Your task to perform on an android device: Go to eBay Image 0: 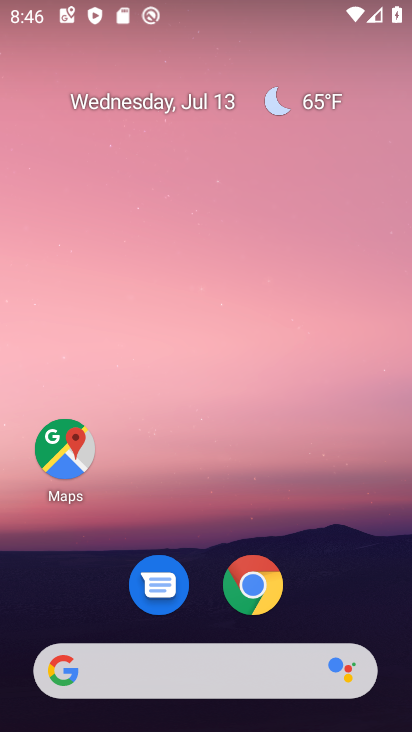
Step 0: click (237, 673)
Your task to perform on an android device: Go to eBay Image 1: 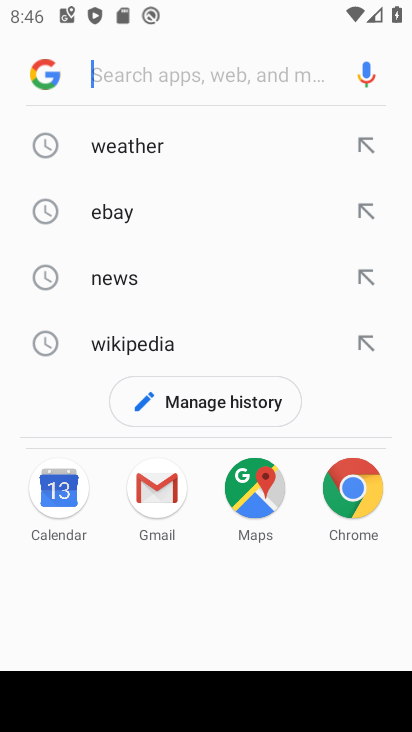
Step 1: type "ebay"
Your task to perform on an android device: Go to eBay Image 2: 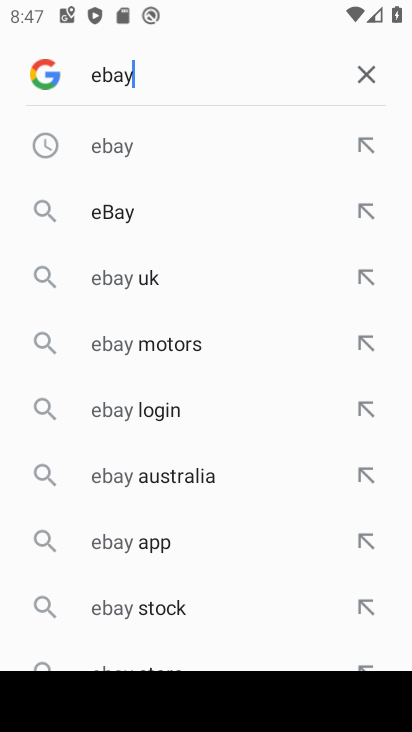
Step 2: click (117, 141)
Your task to perform on an android device: Go to eBay Image 3: 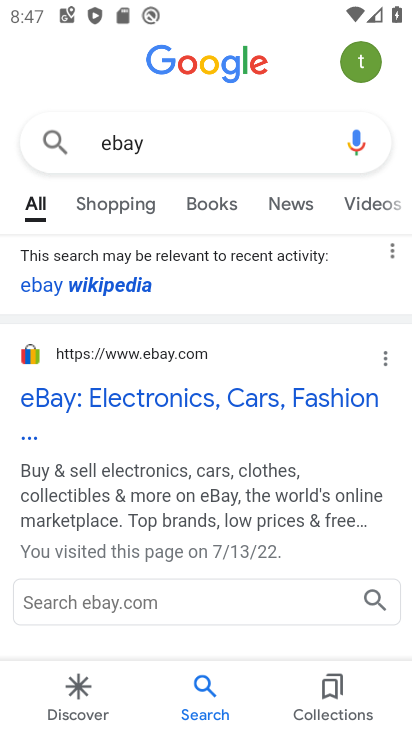
Step 3: click (52, 395)
Your task to perform on an android device: Go to eBay Image 4: 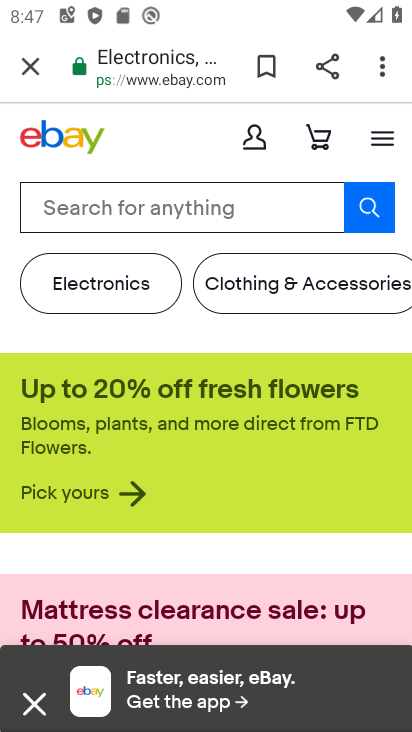
Step 4: task complete